Your task to perform on an android device: Clear all items from cart on walmart.com. Search for "acer nitro" on walmart.com, select the first entry, and add it to the cart. Image 0: 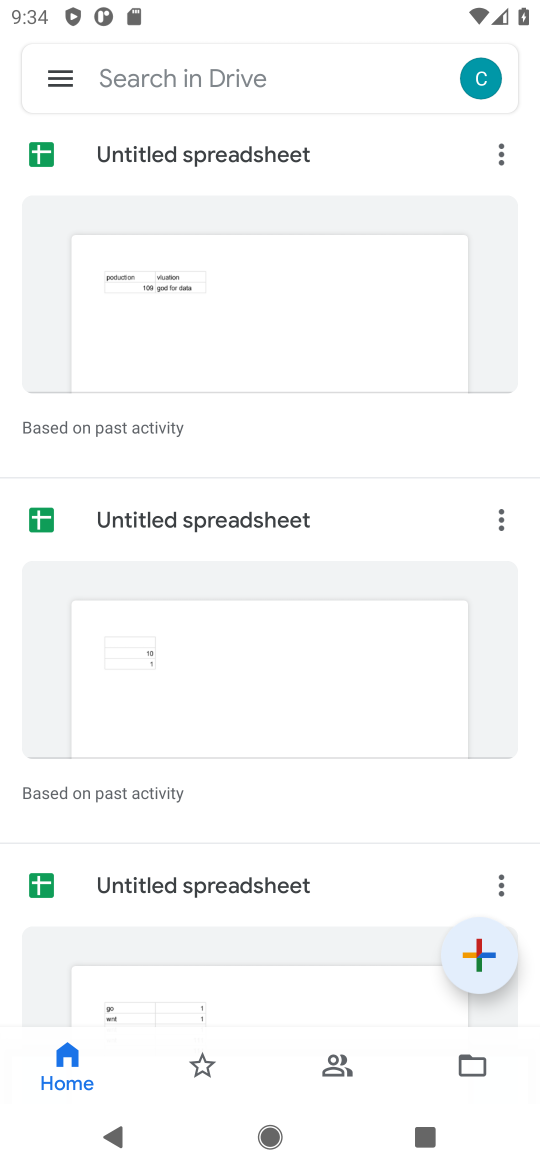
Step 0: press home button
Your task to perform on an android device: Clear all items from cart on walmart.com. Search for "acer nitro" on walmart.com, select the first entry, and add it to the cart. Image 1: 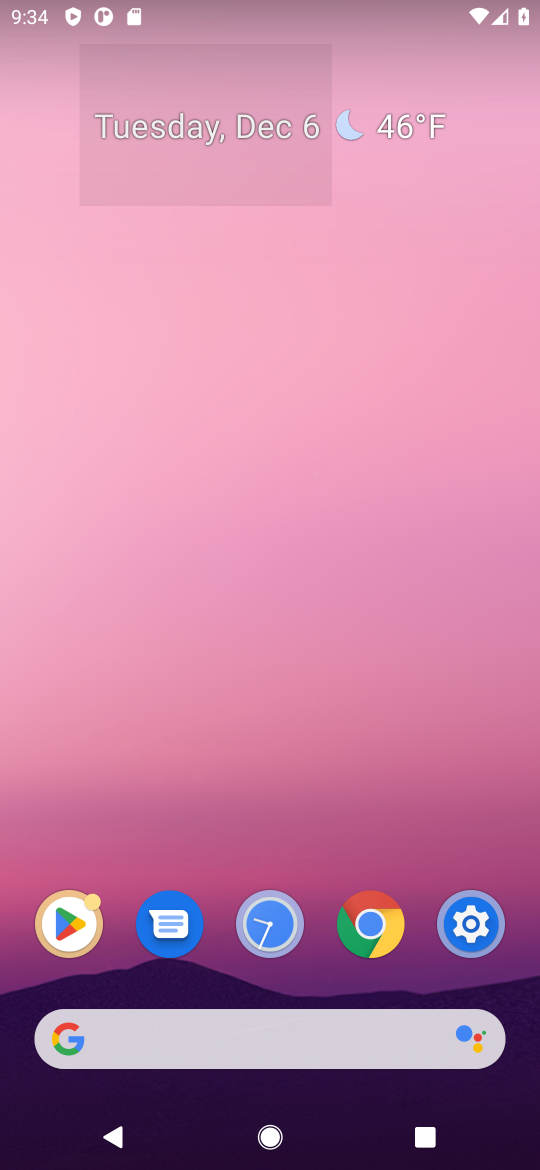
Step 1: click (166, 1056)
Your task to perform on an android device: Clear all items from cart on walmart.com. Search for "acer nitro" on walmart.com, select the first entry, and add it to the cart. Image 2: 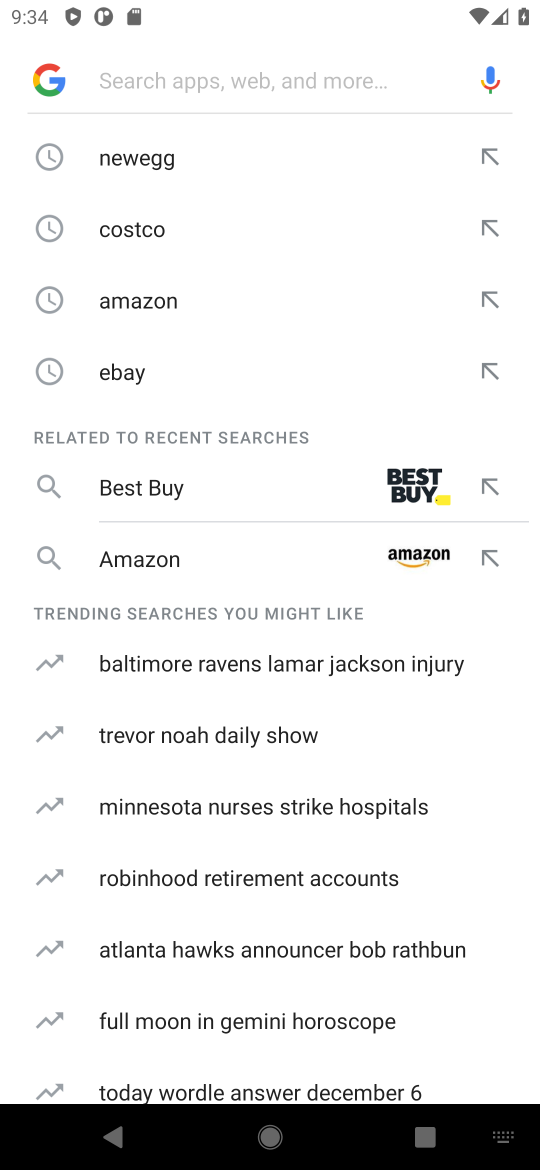
Step 2: type "walmart"
Your task to perform on an android device: Clear all items from cart on walmart.com. Search for "acer nitro" on walmart.com, select the first entry, and add it to the cart. Image 3: 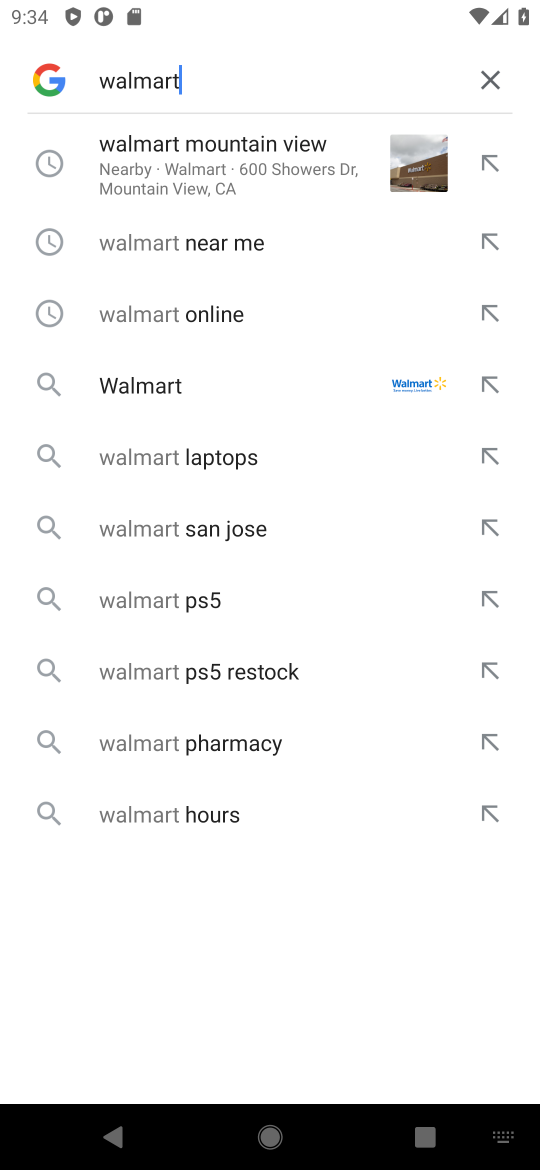
Step 3: click (238, 182)
Your task to perform on an android device: Clear all items from cart on walmart.com. Search for "acer nitro" on walmart.com, select the first entry, and add it to the cart. Image 4: 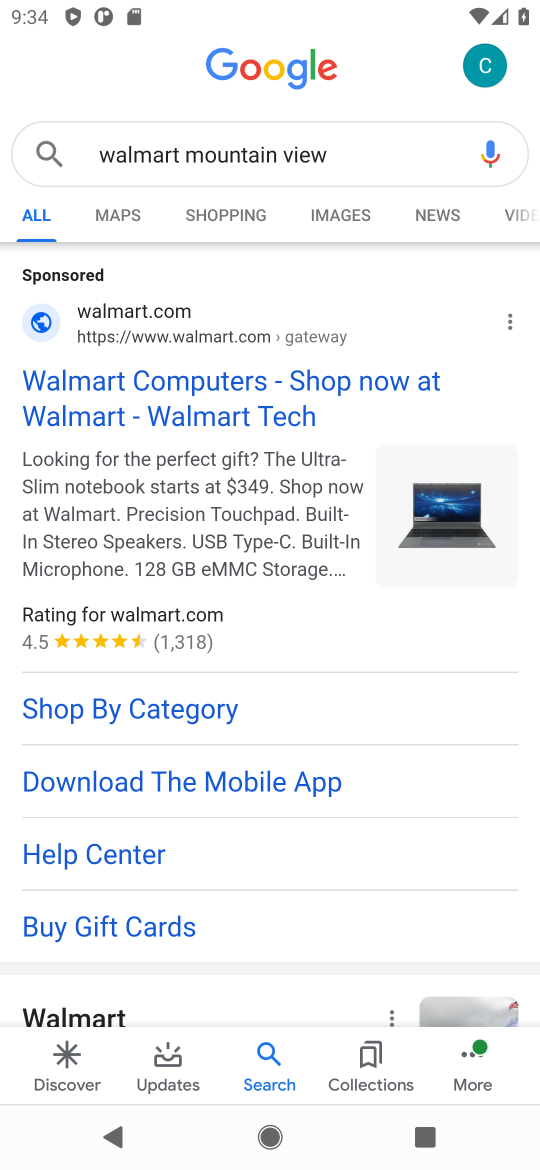
Step 4: click (57, 398)
Your task to perform on an android device: Clear all items from cart on walmart.com. Search for "acer nitro" on walmart.com, select the first entry, and add it to the cart. Image 5: 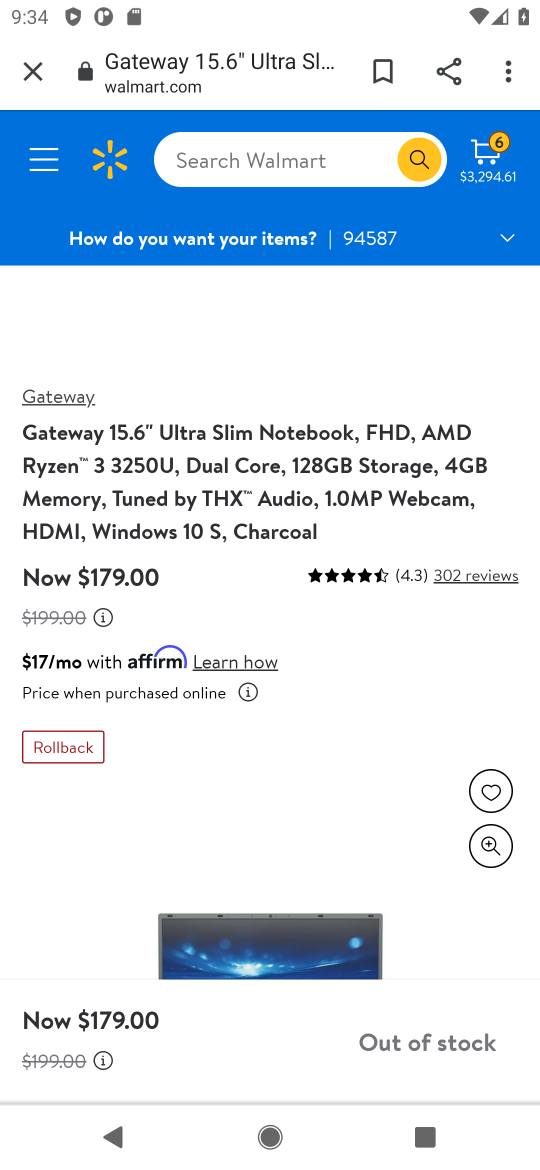
Step 5: click (231, 161)
Your task to perform on an android device: Clear all items from cart on walmart.com. Search for "acer nitro" on walmart.com, select the first entry, and add it to the cart. Image 6: 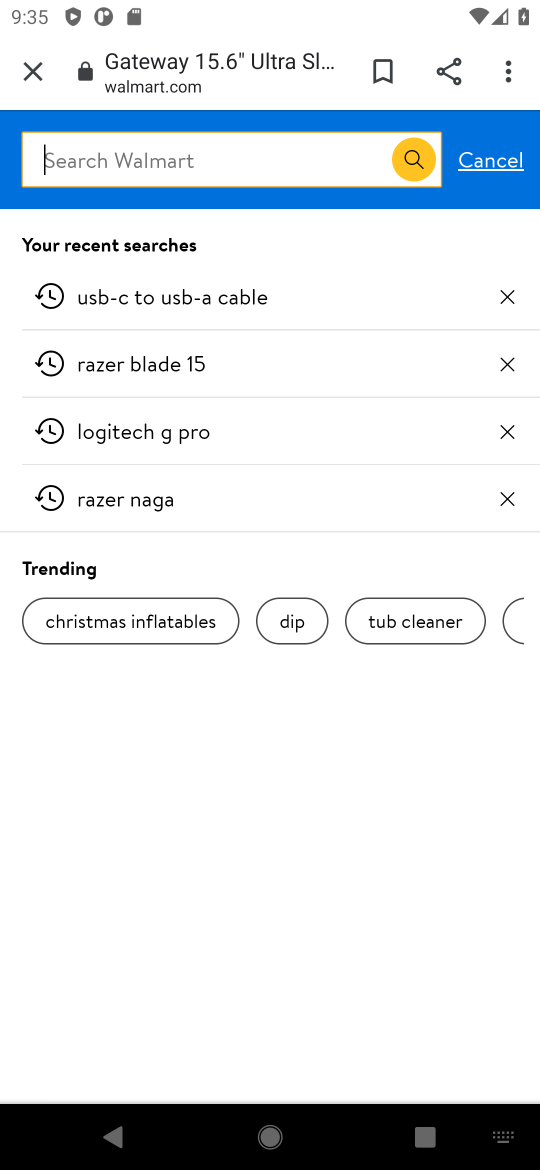
Step 6: type "acer nitro"
Your task to perform on an android device: Clear all items from cart on walmart.com. Search for "acer nitro" on walmart.com, select the first entry, and add it to the cart. Image 7: 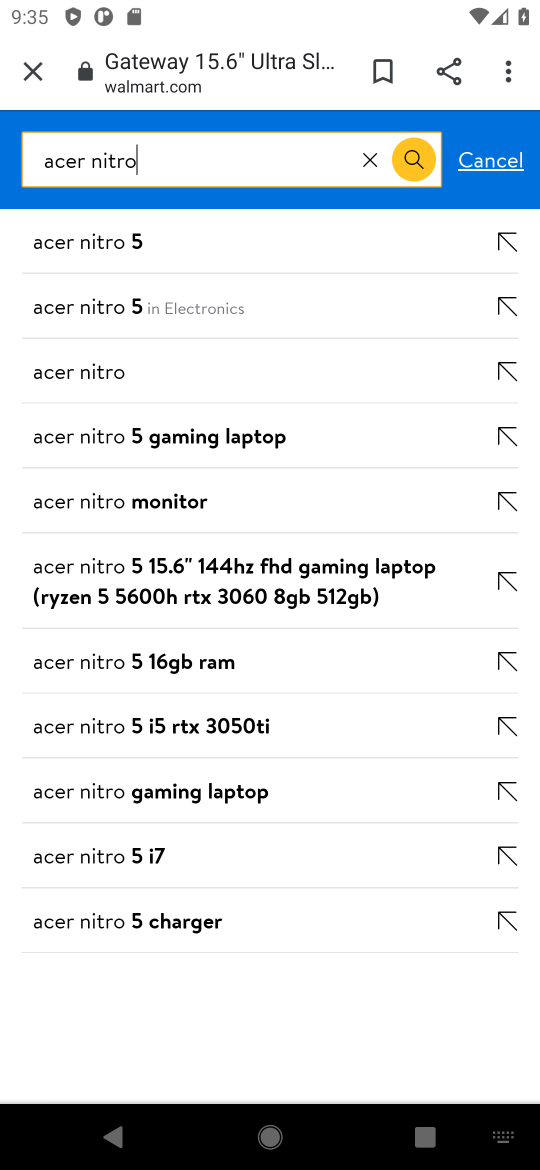
Step 7: click (154, 372)
Your task to perform on an android device: Clear all items from cart on walmart.com. Search for "acer nitro" on walmart.com, select the first entry, and add it to the cart. Image 8: 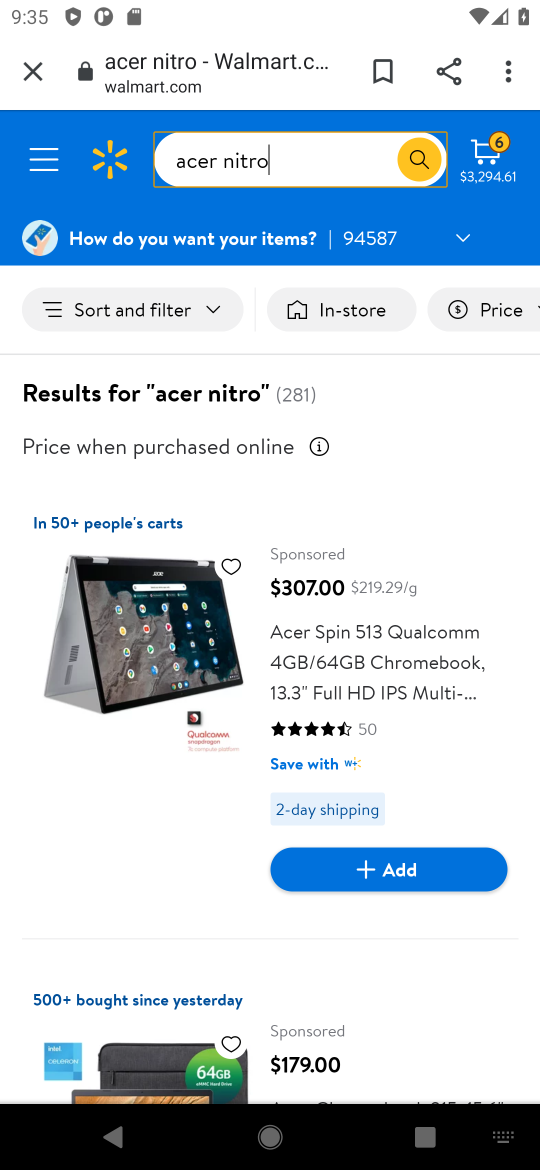
Step 8: click (410, 866)
Your task to perform on an android device: Clear all items from cart on walmart.com. Search for "acer nitro" on walmart.com, select the first entry, and add it to the cart. Image 9: 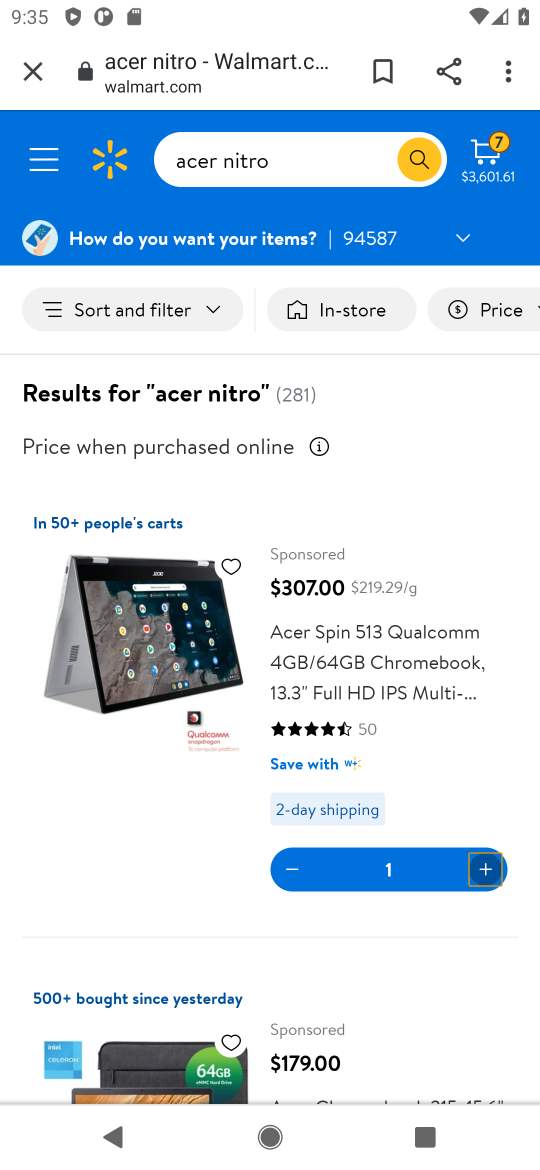
Step 9: task complete